Your task to perform on an android device: change timer sound Image 0: 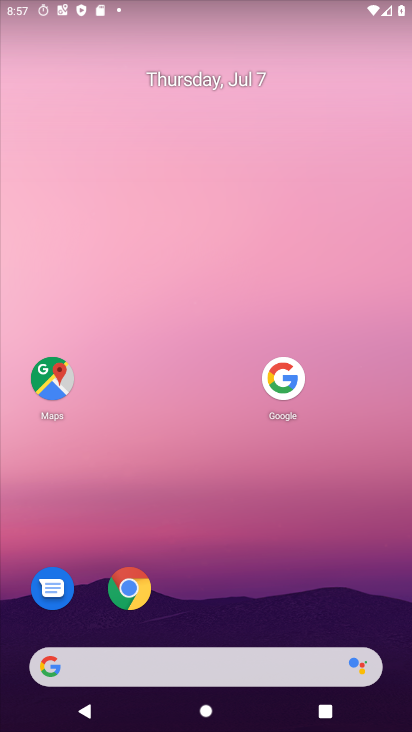
Step 0: press home button
Your task to perform on an android device: change timer sound Image 1: 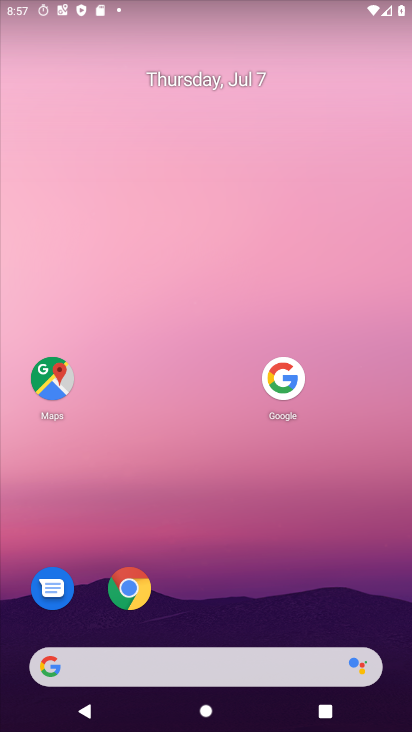
Step 1: drag from (208, 669) to (269, 46)
Your task to perform on an android device: change timer sound Image 2: 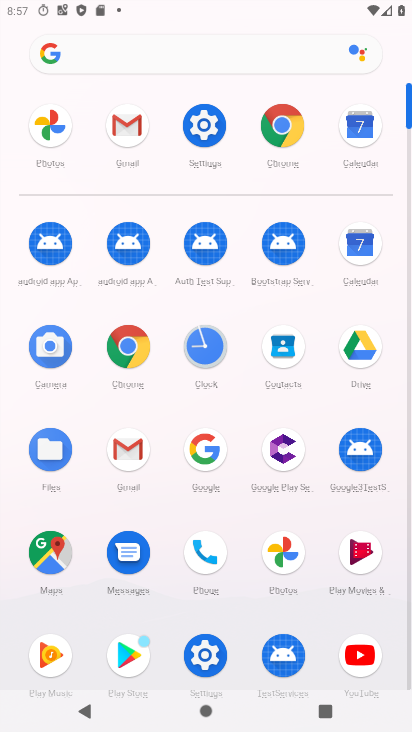
Step 2: click (202, 351)
Your task to perform on an android device: change timer sound Image 3: 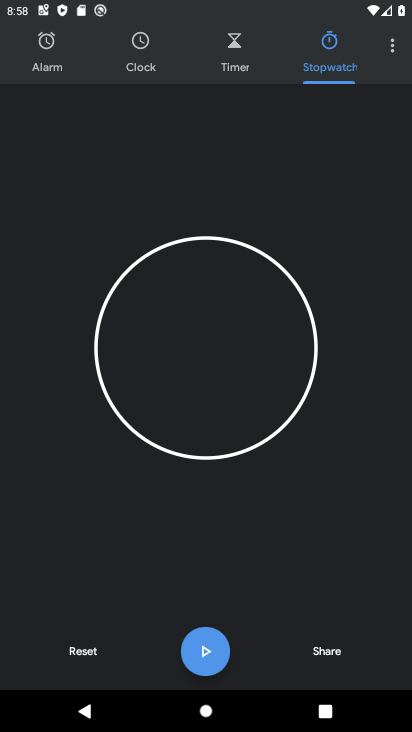
Step 3: click (394, 48)
Your task to perform on an android device: change timer sound Image 4: 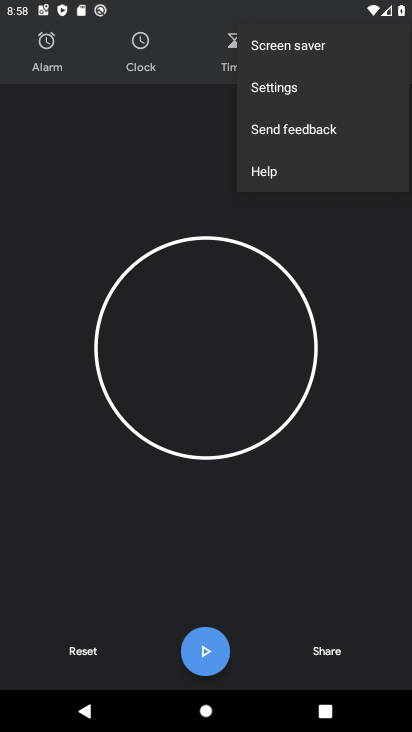
Step 4: click (272, 91)
Your task to perform on an android device: change timer sound Image 5: 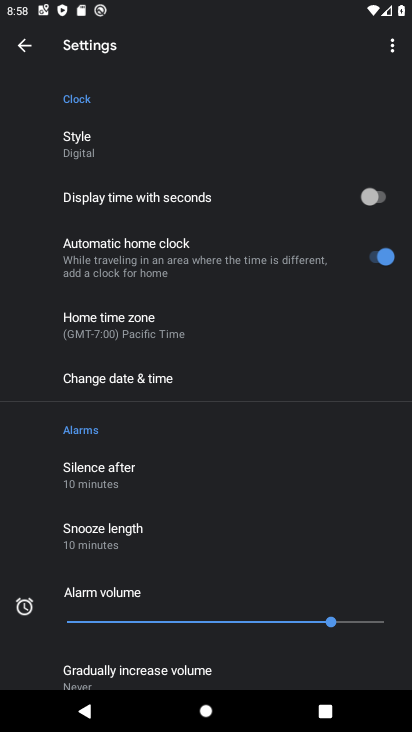
Step 5: drag from (188, 530) to (310, 54)
Your task to perform on an android device: change timer sound Image 6: 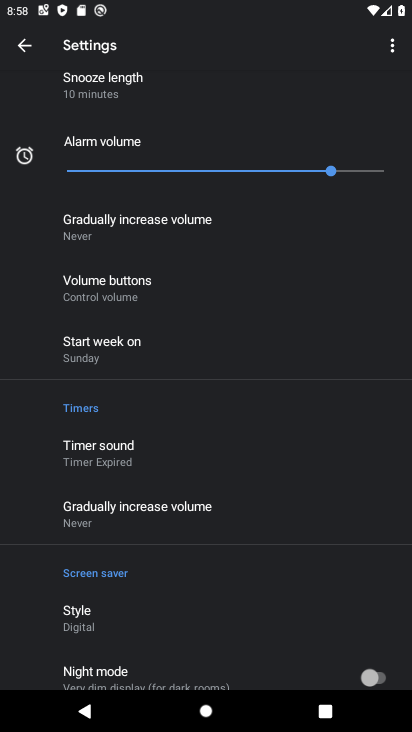
Step 6: click (134, 450)
Your task to perform on an android device: change timer sound Image 7: 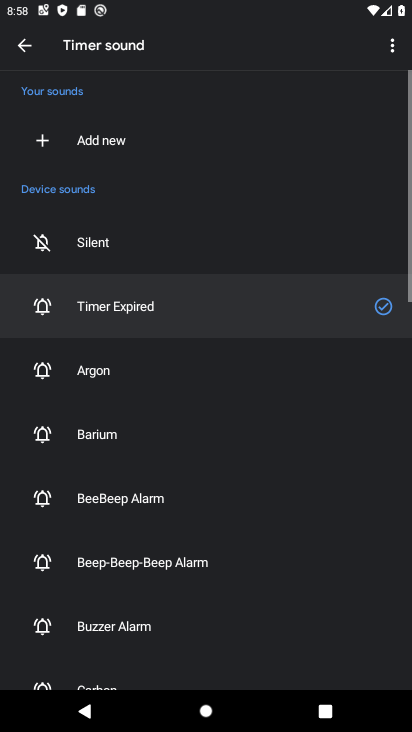
Step 7: click (96, 377)
Your task to perform on an android device: change timer sound Image 8: 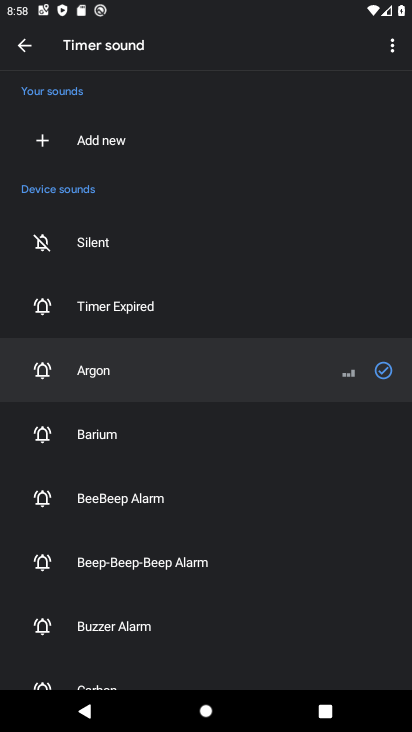
Step 8: task complete